Your task to perform on an android device: Go to battery settings Image 0: 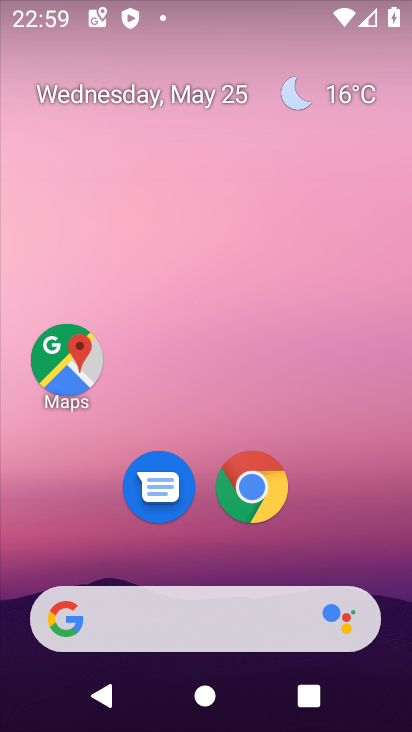
Step 0: drag from (186, 457) to (279, 17)
Your task to perform on an android device: Go to battery settings Image 1: 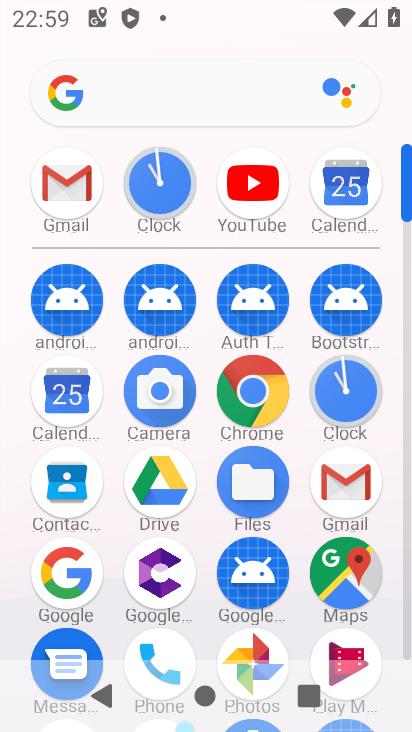
Step 1: drag from (232, 526) to (263, 80)
Your task to perform on an android device: Go to battery settings Image 2: 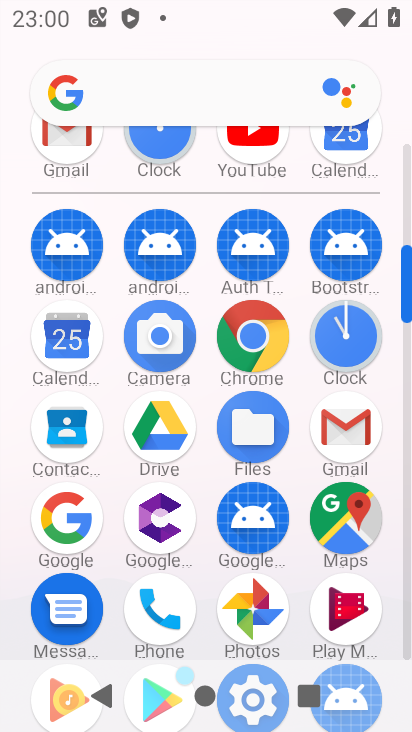
Step 2: drag from (288, 558) to (342, 16)
Your task to perform on an android device: Go to battery settings Image 3: 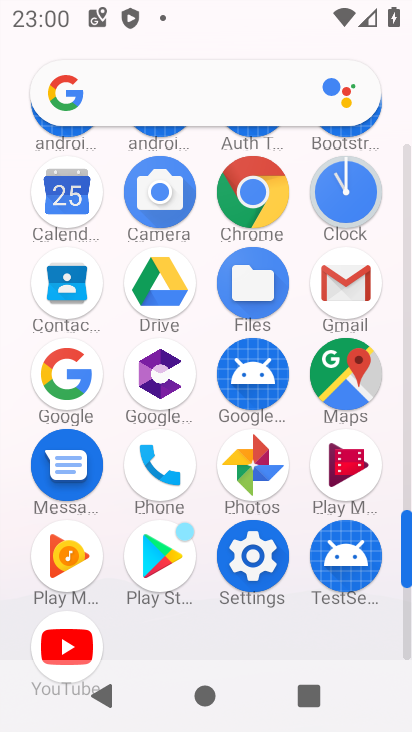
Step 3: click (272, 571)
Your task to perform on an android device: Go to battery settings Image 4: 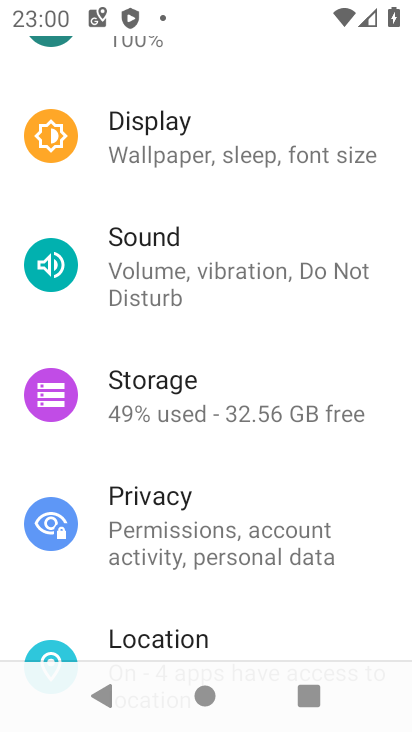
Step 4: drag from (252, 188) to (243, 511)
Your task to perform on an android device: Go to battery settings Image 5: 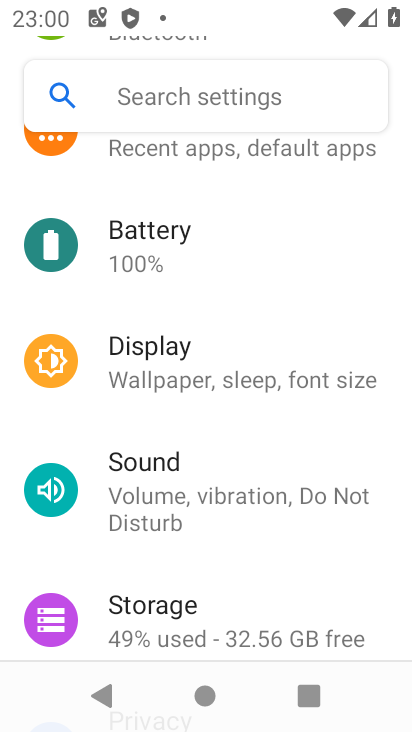
Step 5: click (190, 248)
Your task to perform on an android device: Go to battery settings Image 6: 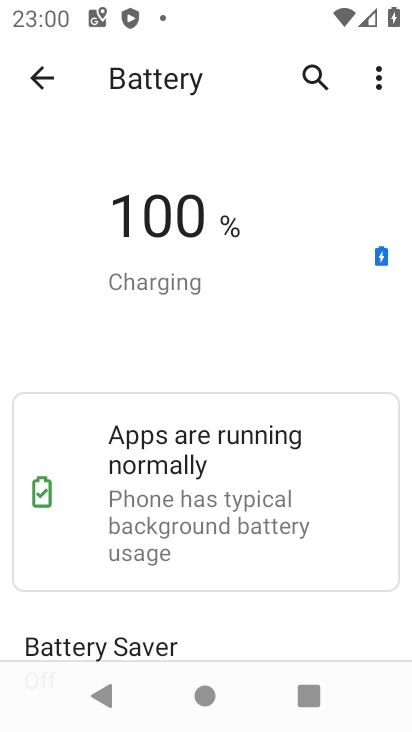
Step 6: task complete